Your task to perform on an android device: Open ESPN.com Image 0: 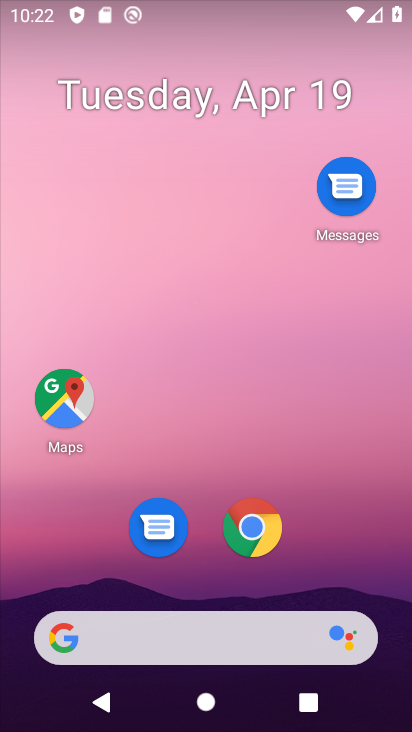
Step 0: click (262, 535)
Your task to perform on an android device: Open ESPN.com Image 1: 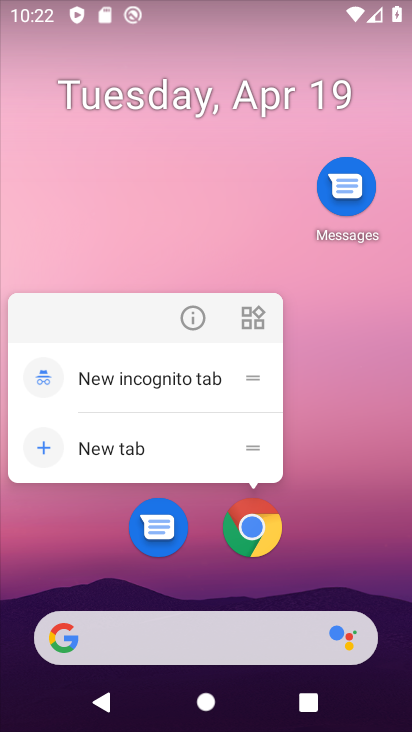
Step 1: click (245, 539)
Your task to perform on an android device: Open ESPN.com Image 2: 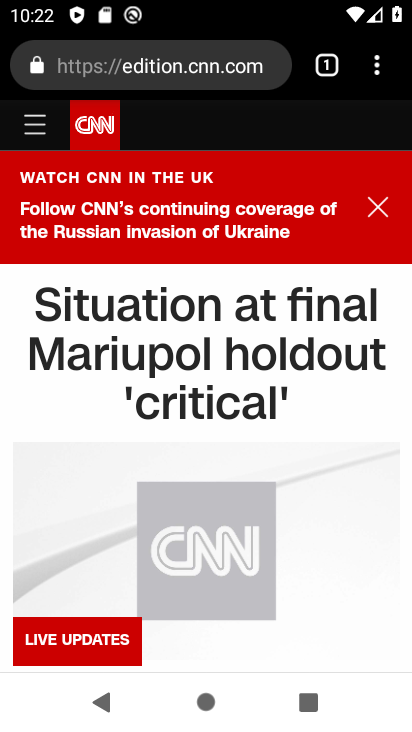
Step 2: click (178, 69)
Your task to perform on an android device: Open ESPN.com Image 3: 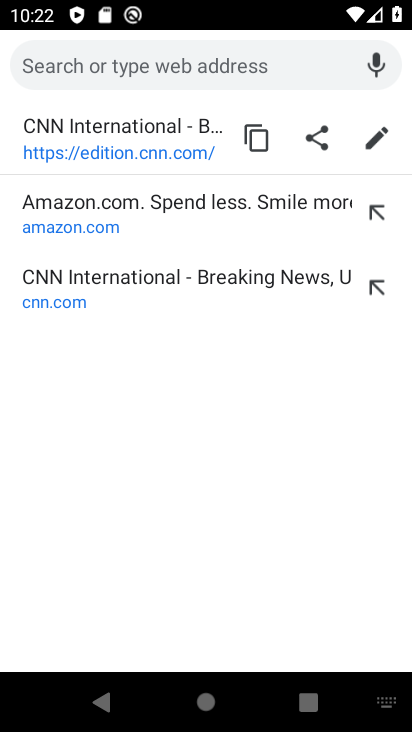
Step 3: type "ESPN.com"
Your task to perform on an android device: Open ESPN.com Image 4: 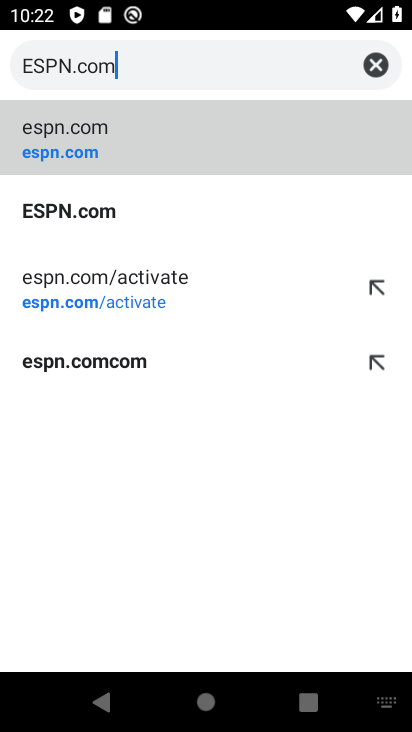
Step 4: click (32, 164)
Your task to perform on an android device: Open ESPN.com Image 5: 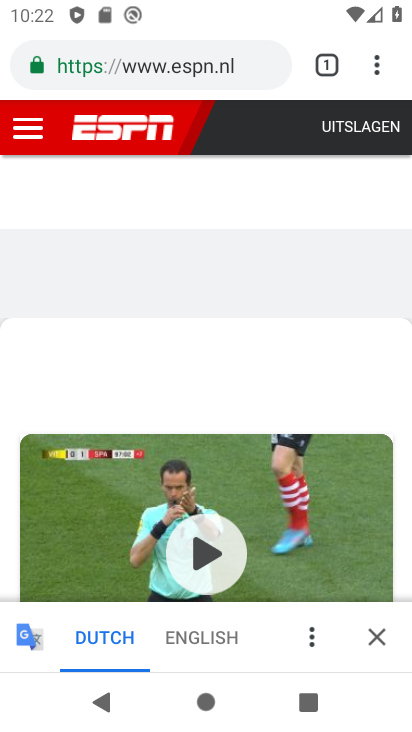
Step 5: task complete